Your task to perform on an android device: Search for sushi restaurants on Maps Image 0: 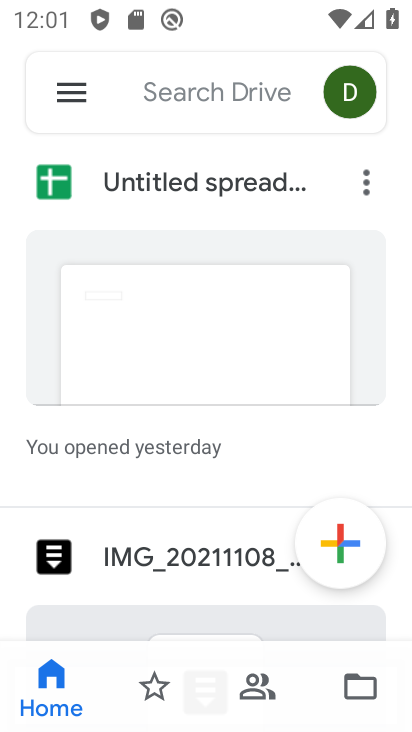
Step 0: press home button
Your task to perform on an android device: Search for sushi restaurants on Maps Image 1: 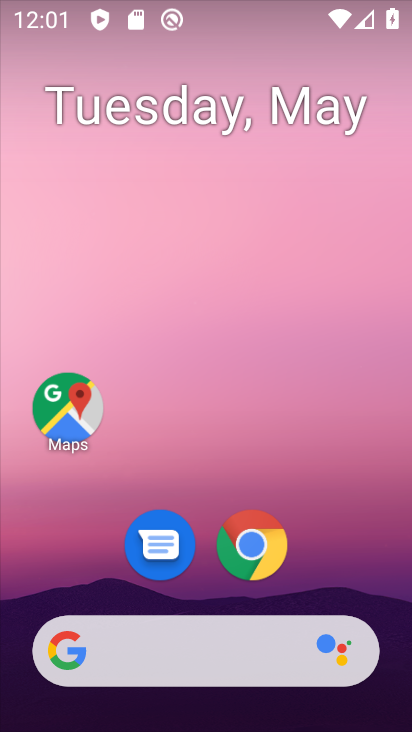
Step 1: click (68, 389)
Your task to perform on an android device: Search for sushi restaurants on Maps Image 2: 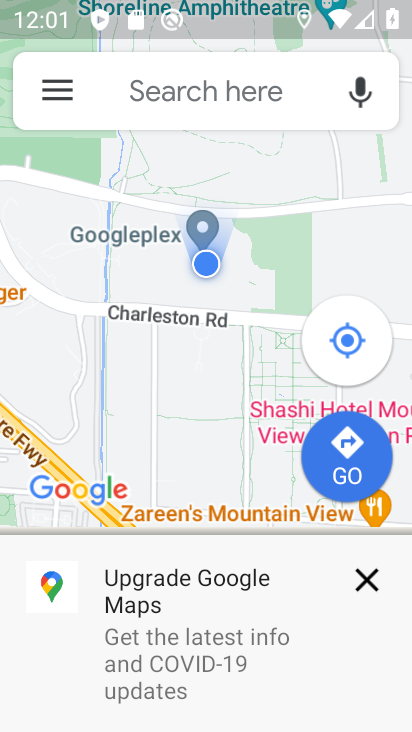
Step 2: click (187, 96)
Your task to perform on an android device: Search for sushi restaurants on Maps Image 3: 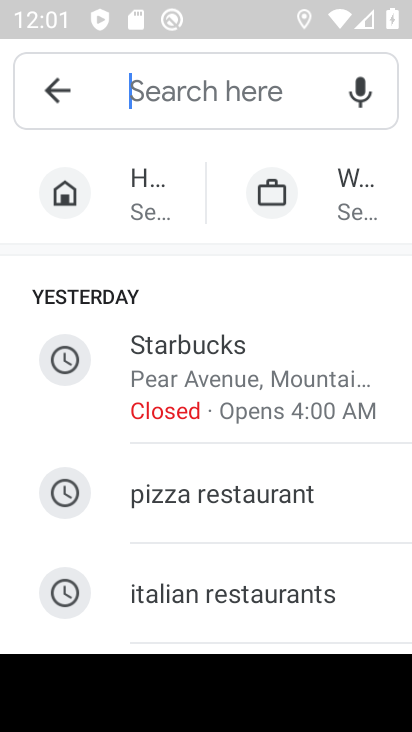
Step 3: type "sushi restaurant"
Your task to perform on an android device: Search for sushi restaurants on Maps Image 4: 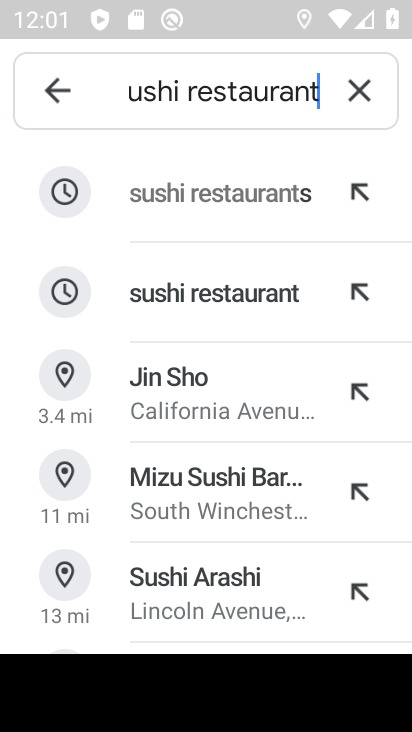
Step 4: click (161, 307)
Your task to perform on an android device: Search for sushi restaurants on Maps Image 5: 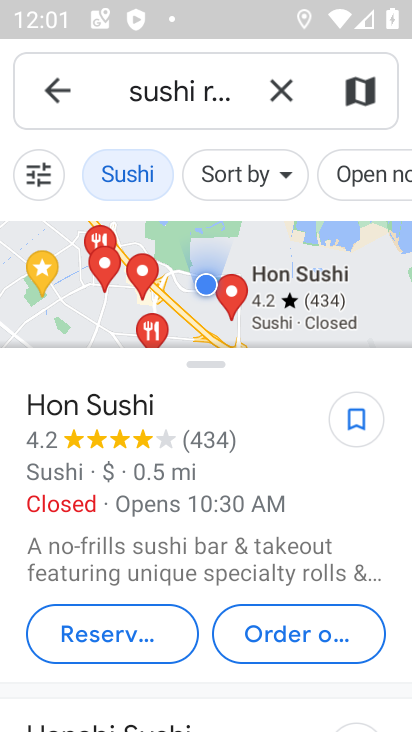
Step 5: task complete